Your task to perform on an android device: turn off smart reply in the gmail app Image 0: 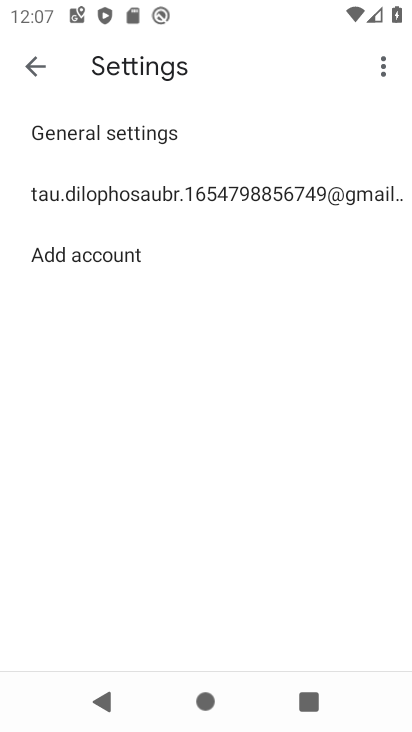
Step 0: press home button
Your task to perform on an android device: turn off smart reply in the gmail app Image 1: 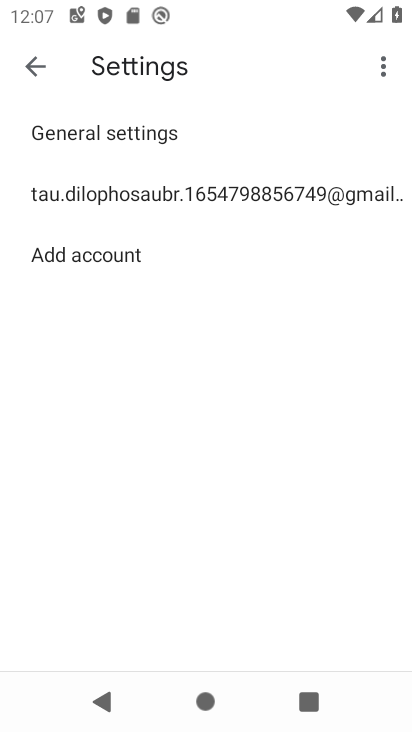
Step 1: press home button
Your task to perform on an android device: turn off smart reply in the gmail app Image 2: 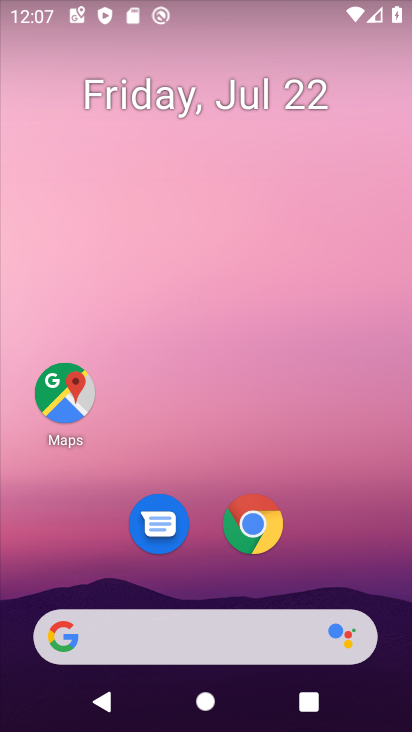
Step 2: drag from (330, 566) to (315, 74)
Your task to perform on an android device: turn off smart reply in the gmail app Image 3: 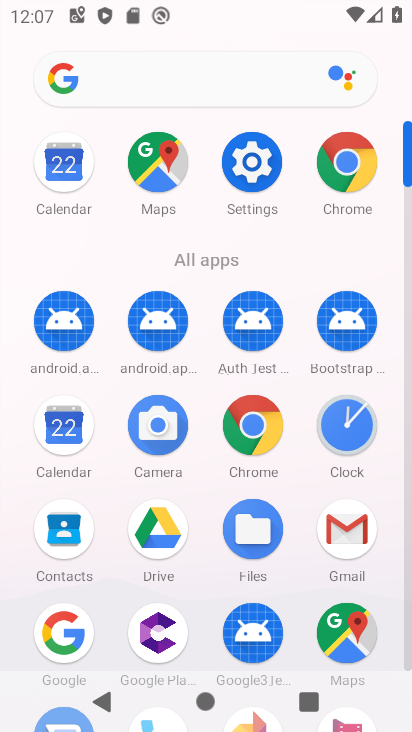
Step 3: click (345, 528)
Your task to perform on an android device: turn off smart reply in the gmail app Image 4: 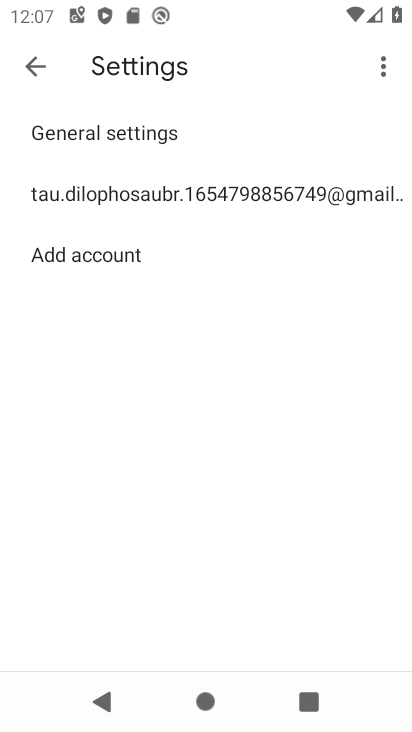
Step 4: click (175, 195)
Your task to perform on an android device: turn off smart reply in the gmail app Image 5: 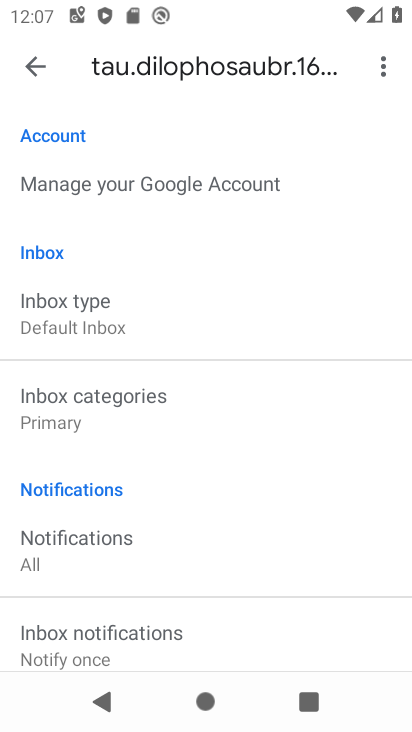
Step 5: drag from (214, 506) to (236, 4)
Your task to perform on an android device: turn off smart reply in the gmail app Image 6: 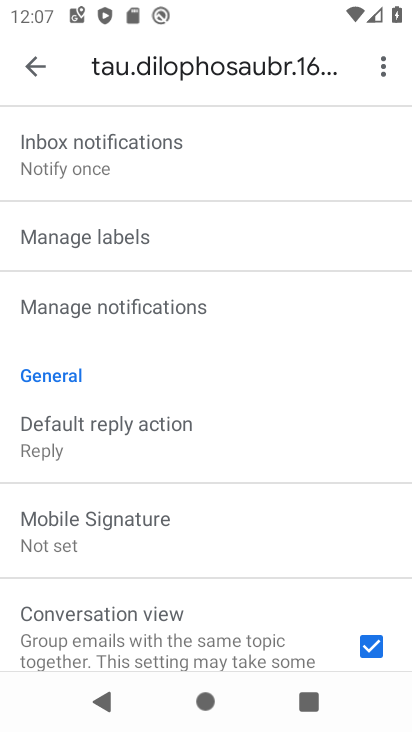
Step 6: drag from (203, 532) to (231, 126)
Your task to perform on an android device: turn off smart reply in the gmail app Image 7: 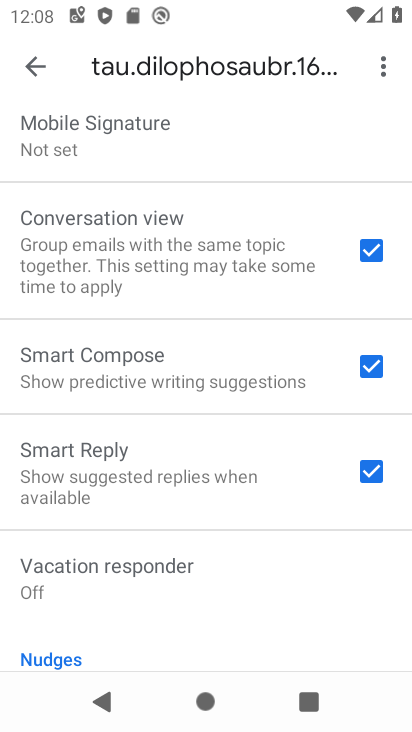
Step 7: click (381, 471)
Your task to perform on an android device: turn off smart reply in the gmail app Image 8: 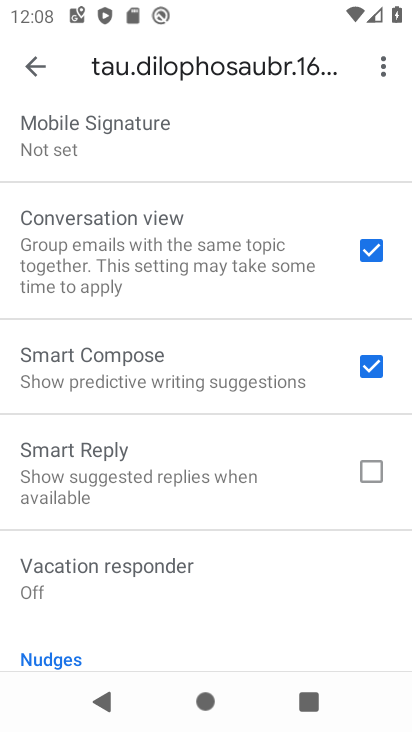
Step 8: task complete